Your task to perform on an android device: Clear all items from cart on costco.com. Search for acer nitro on costco.com, select the first entry, and add it to the cart. Image 0: 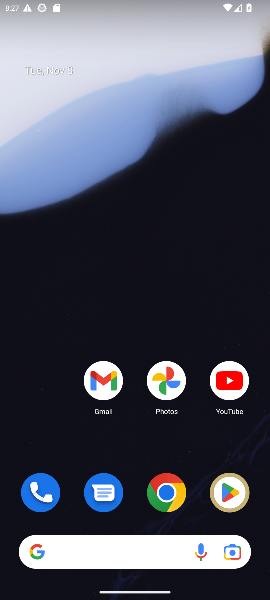
Step 0: click (174, 492)
Your task to perform on an android device: Clear all items from cart on costco.com. Search for acer nitro on costco.com, select the first entry, and add it to the cart. Image 1: 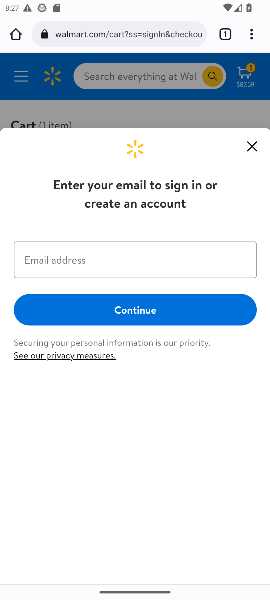
Step 1: click (166, 35)
Your task to perform on an android device: Clear all items from cart on costco.com. Search for acer nitro on costco.com, select the first entry, and add it to the cart. Image 2: 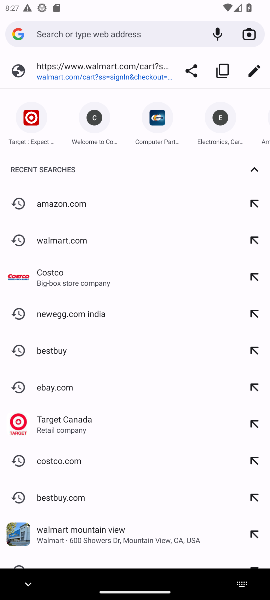
Step 2: type "costco.com"
Your task to perform on an android device: Clear all items from cart on costco.com. Search for acer nitro on costco.com, select the first entry, and add it to the cart. Image 3: 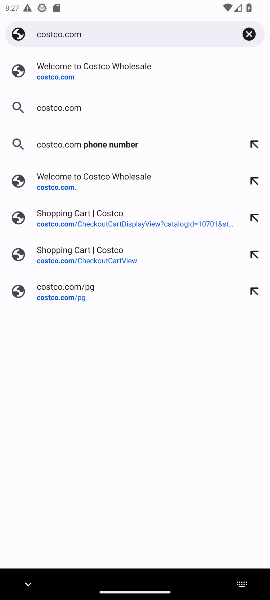
Step 3: click (60, 103)
Your task to perform on an android device: Clear all items from cart on costco.com. Search for acer nitro on costco.com, select the first entry, and add it to the cart. Image 4: 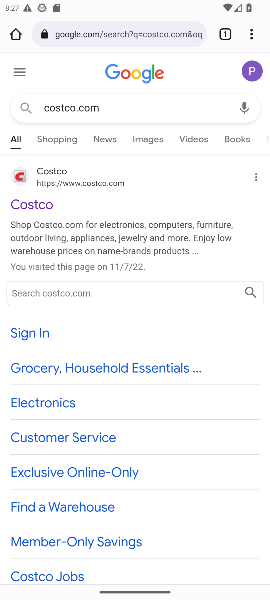
Step 4: click (67, 181)
Your task to perform on an android device: Clear all items from cart on costco.com. Search for acer nitro on costco.com, select the first entry, and add it to the cart. Image 5: 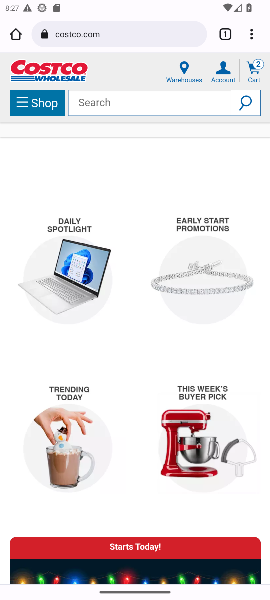
Step 5: click (254, 74)
Your task to perform on an android device: Clear all items from cart on costco.com. Search for acer nitro on costco.com, select the first entry, and add it to the cart. Image 6: 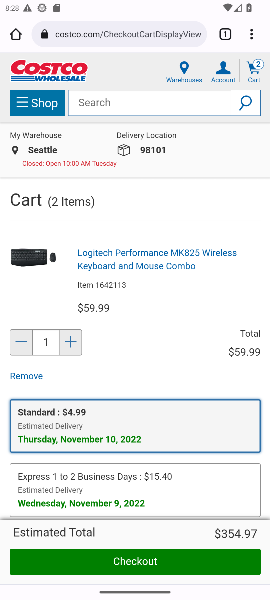
Step 6: click (21, 343)
Your task to perform on an android device: Clear all items from cart on costco.com. Search for acer nitro on costco.com, select the first entry, and add it to the cart. Image 7: 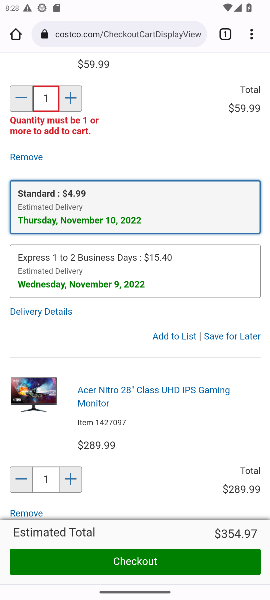
Step 7: click (19, 482)
Your task to perform on an android device: Clear all items from cart on costco.com. Search for acer nitro on costco.com, select the first entry, and add it to the cart. Image 8: 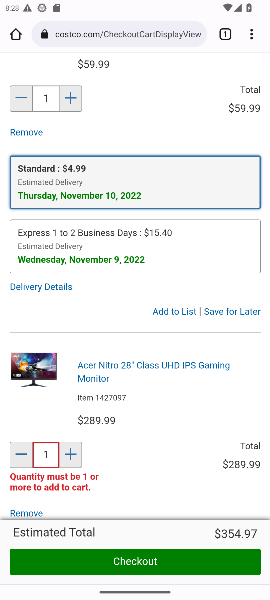
Step 8: drag from (201, 395) to (181, 142)
Your task to perform on an android device: Clear all items from cart on costco.com. Search for acer nitro on costco.com, select the first entry, and add it to the cart. Image 9: 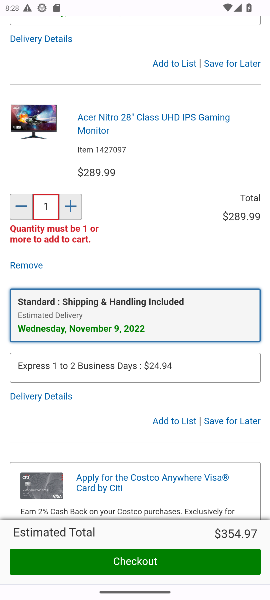
Step 9: click (178, 417)
Your task to perform on an android device: Clear all items from cart on costco.com. Search for acer nitro on costco.com, select the first entry, and add it to the cart. Image 10: 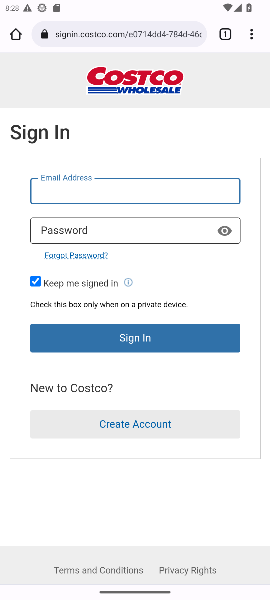
Step 10: press back button
Your task to perform on an android device: Clear all items from cart on costco.com. Search for acer nitro on costco.com, select the first entry, and add it to the cart. Image 11: 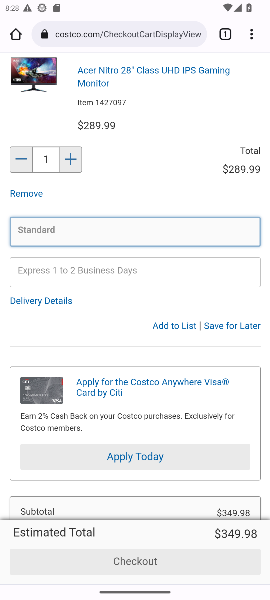
Step 11: drag from (175, 152) to (211, 424)
Your task to perform on an android device: Clear all items from cart on costco.com. Search for acer nitro on costco.com, select the first entry, and add it to the cart. Image 12: 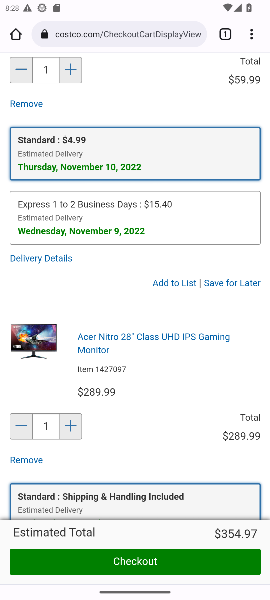
Step 12: drag from (154, 84) to (205, 398)
Your task to perform on an android device: Clear all items from cart on costco.com. Search for acer nitro on costco.com, select the first entry, and add it to the cart. Image 13: 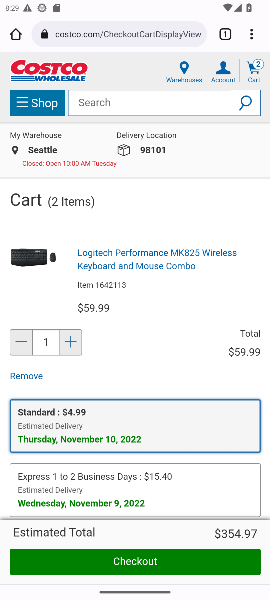
Step 13: click (109, 106)
Your task to perform on an android device: Clear all items from cart on costco.com. Search for acer nitro on costco.com, select the first entry, and add it to the cart. Image 14: 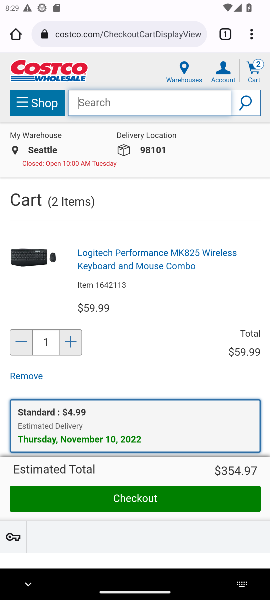
Step 14: type "acer nitro "
Your task to perform on an android device: Clear all items from cart on costco.com. Search for acer nitro on costco.com, select the first entry, and add it to the cart. Image 15: 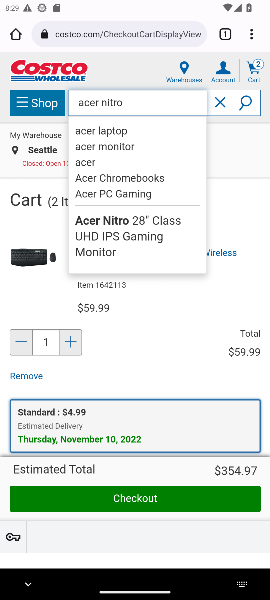
Step 15: click (236, 168)
Your task to perform on an android device: Clear all items from cart on costco.com. Search for acer nitro on costco.com, select the first entry, and add it to the cart. Image 16: 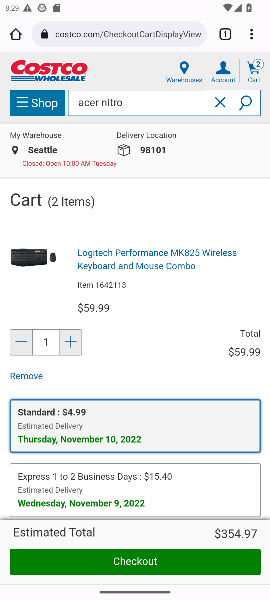
Step 16: task complete